Your task to perform on an android device: open the mobile data screen to see how much data has been used Image 0: 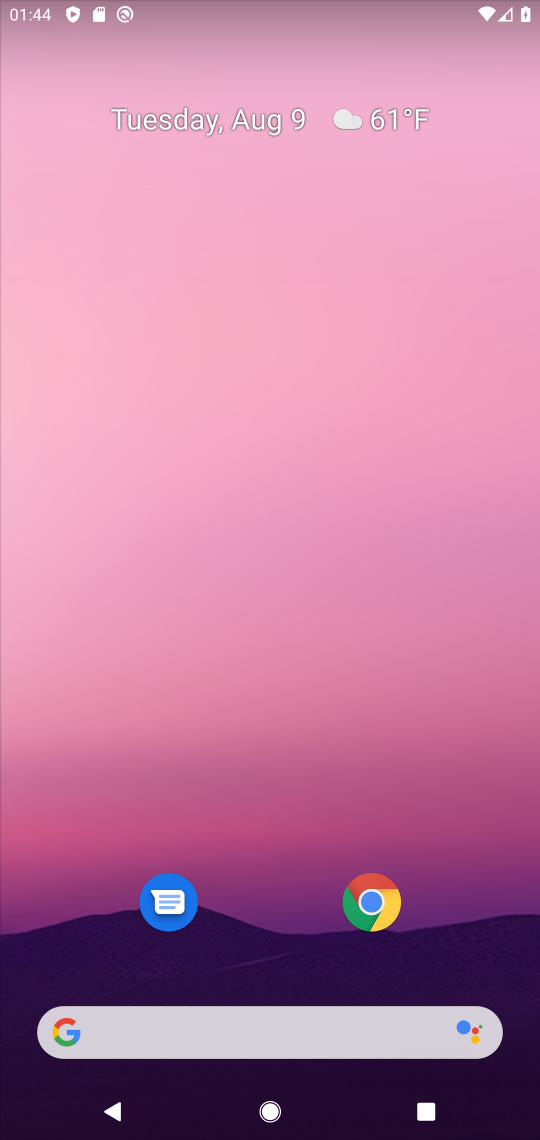
Step 0: drag from (313, 978) to (315, 405)
Your task to perform on an android device: open the mobile data screen to see how much data has been used Image 1: 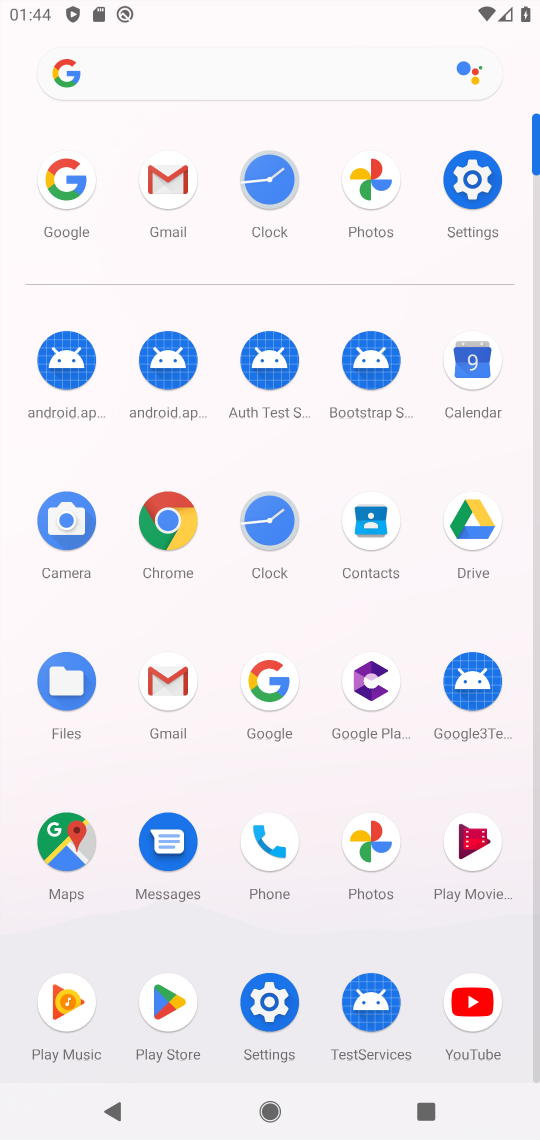
Step 1: click (488, 184)
Your task to perform on an android device: open the mobile data screen to see how much data has been used Image 2: 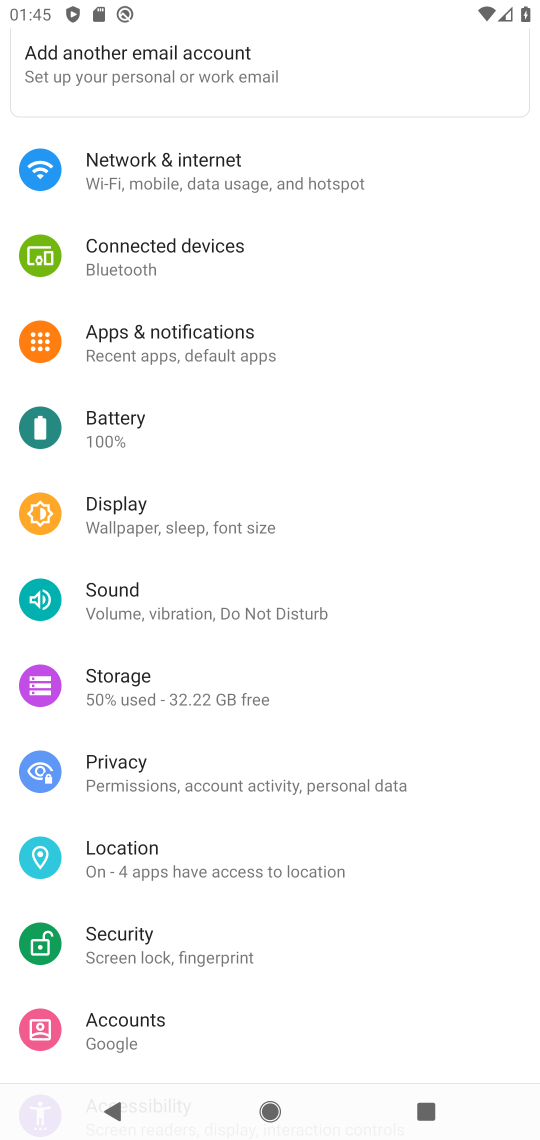
Step 2: click (232, 167)
Your task to perform on an android device: open the mobile data screen to see how much data has been used Image 3: 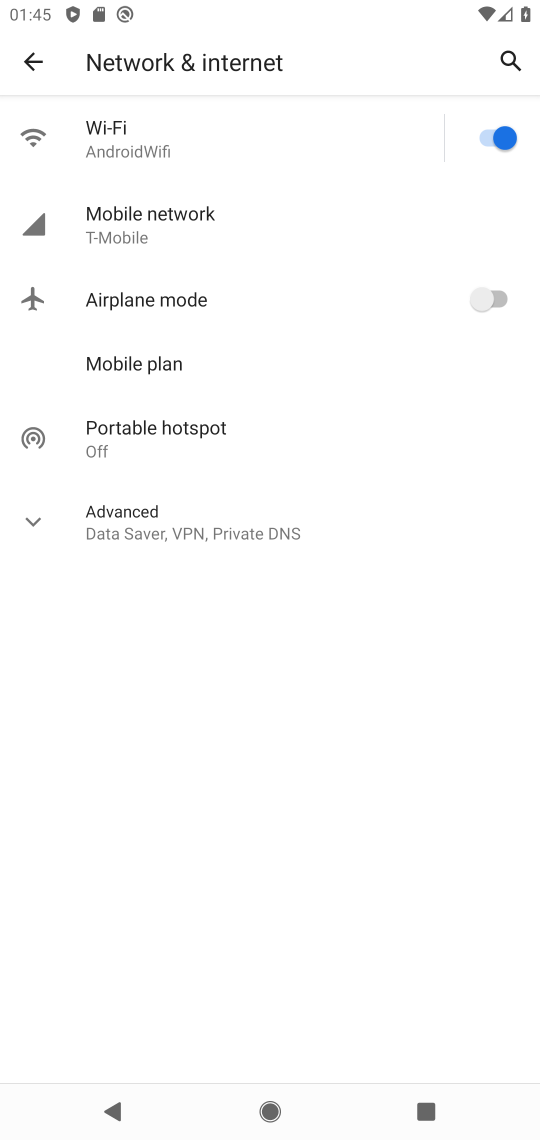
Step 3: click (151, 528)
Your task to perform on an android device: open the mobile data screen to see how much data has been used Image 4: 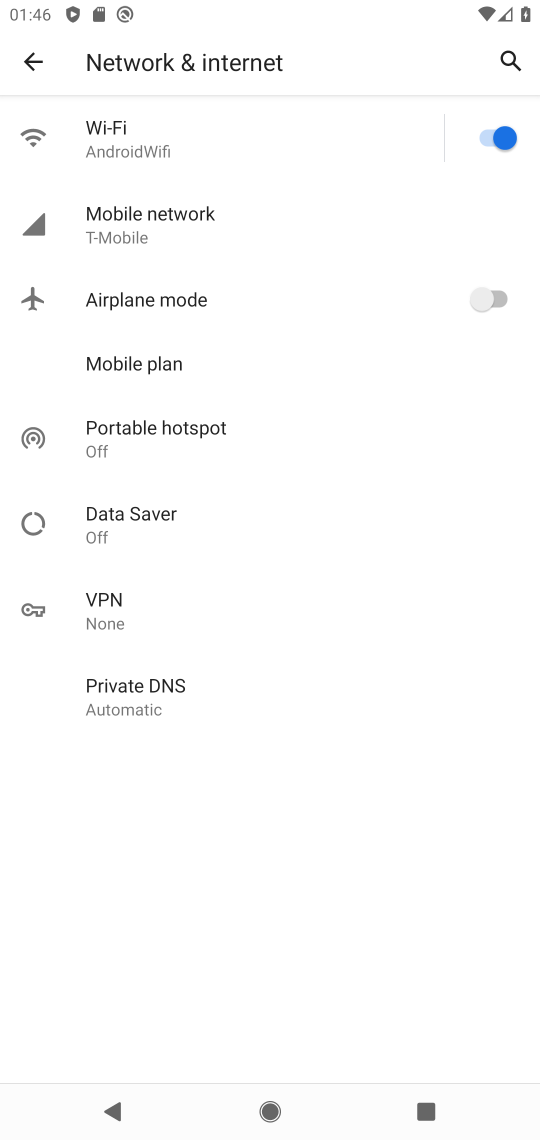
Step 4: click (155, 229)
Your task to perform on an android device: open the mobile data screen to see how much data has been used Image 5: 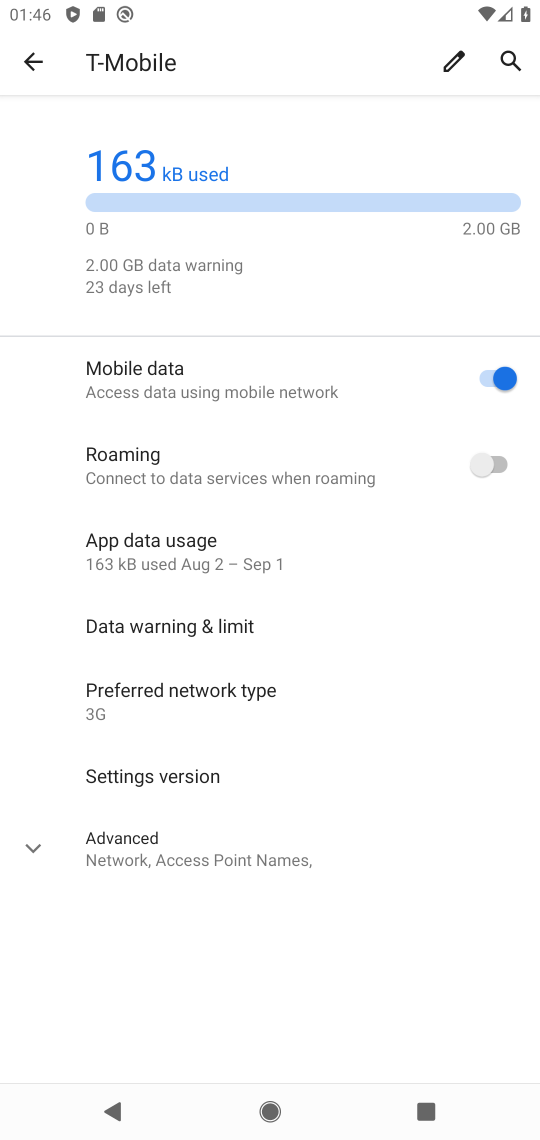
Step 5: task complete